Your task to perform on an android device: Search for vegetarian restaurants on Maps Image 0: 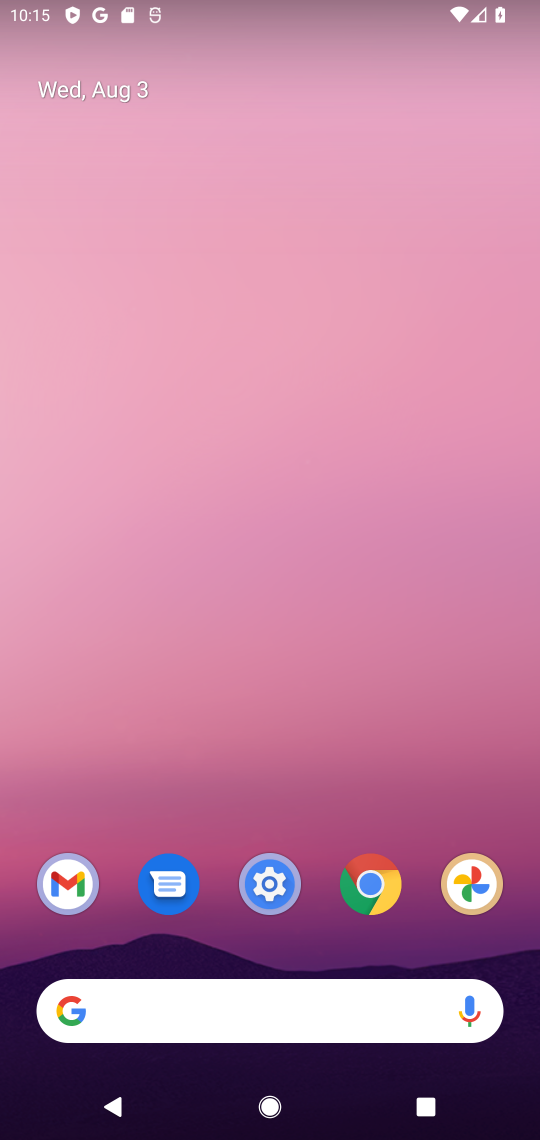
Step 0: press home button
Your task to perform on an android device: Search for vegetarian restaurants on Maps Image 1: 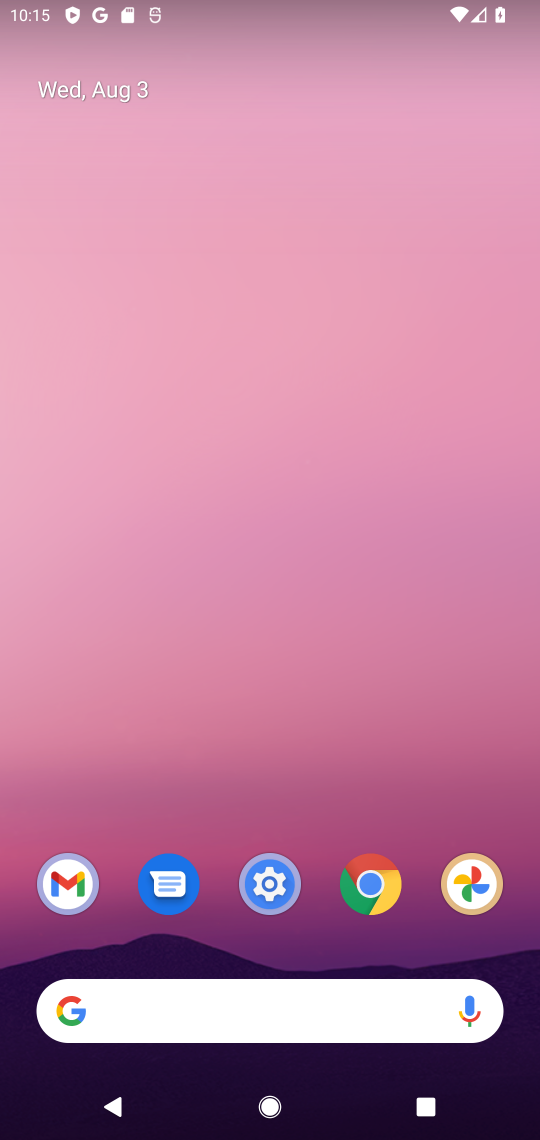
Step 1: drag from (313, 790) to (309, 70)
Your task to perform on an android device: Search for vegetarian restaurants on Maps Image 2: 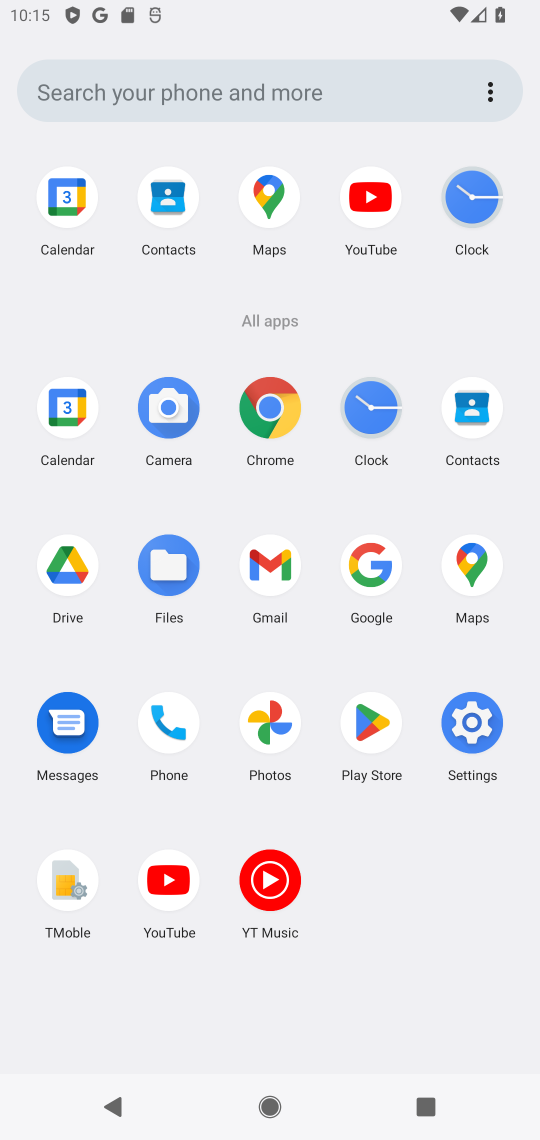
Step 2: click (476, 591)
Your task to perform on an android device: Search for vegetarian restaurants on Maps Image 3: 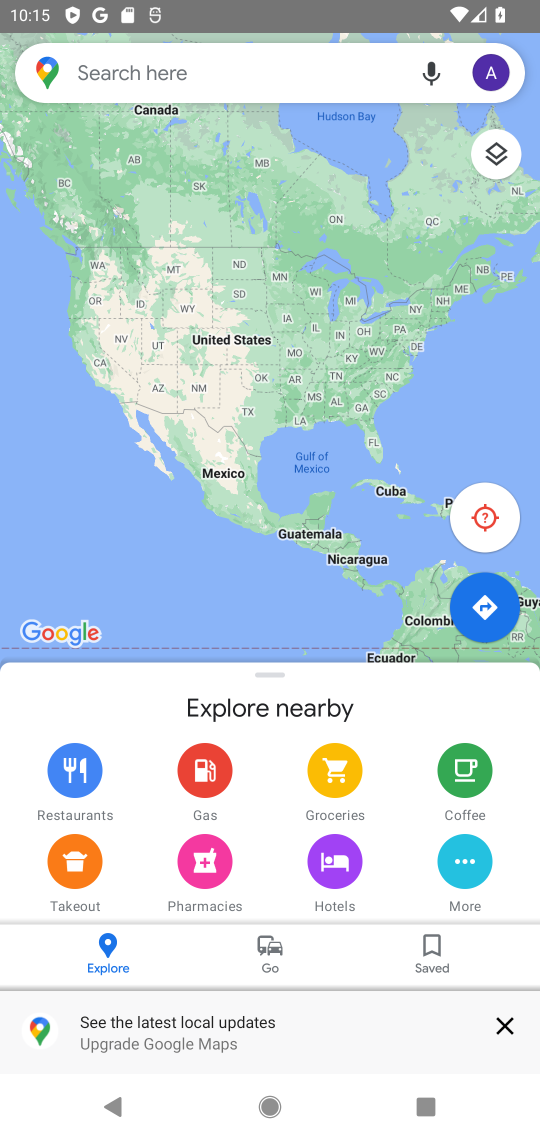
Step 3: click (190, 86)
Your task to perform on an android device: Search for vegetarian restaurants on Maps Image 4: 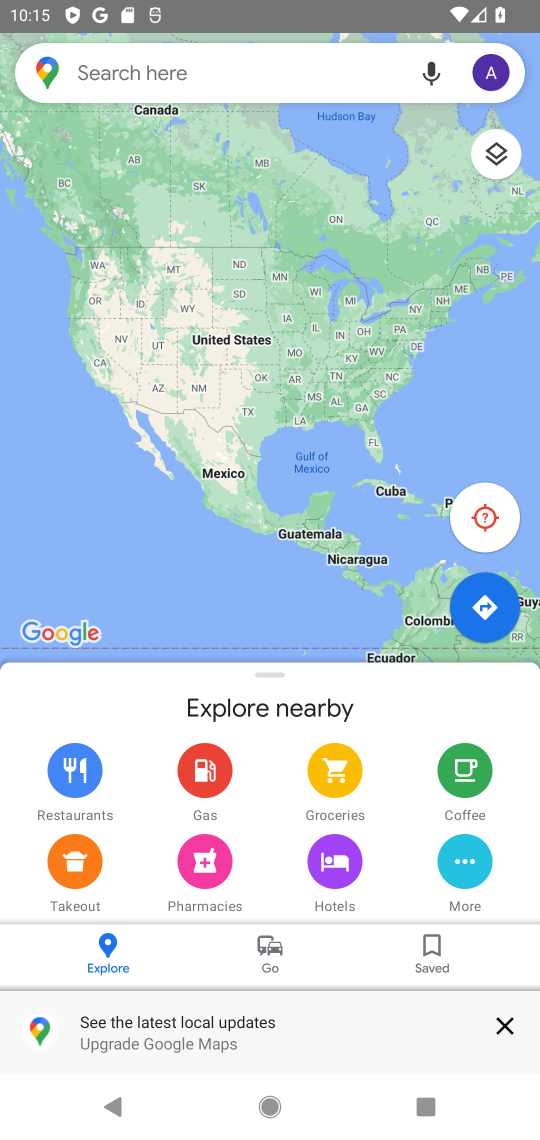
Step 4: click (190, 86)
Your task to perform on an android device: Search for vegetarian restaurants on Maps Image 5: 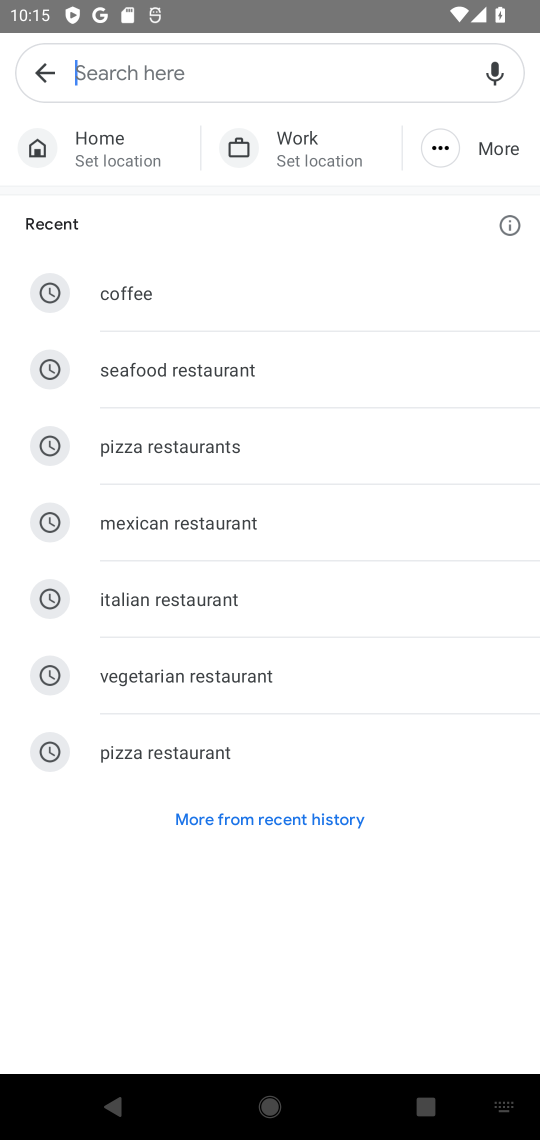
Step 5: click (180, 679)
Your task to perform on an android device: Search for vegetarian restaurants on Maps Image 6: 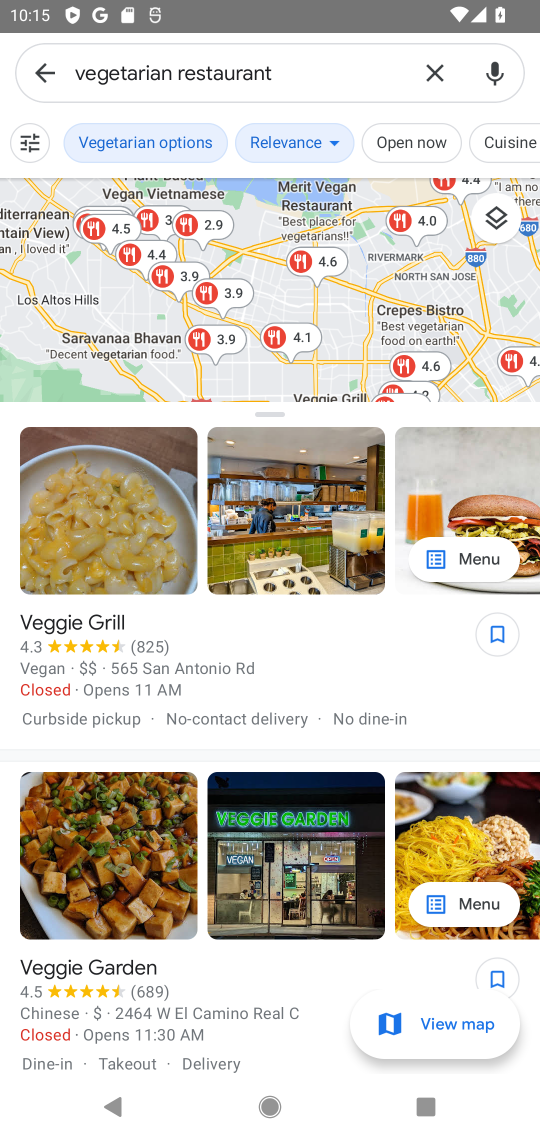
Step 6: task complete